Your task to perform on an android device: change notifications settings Image 0: 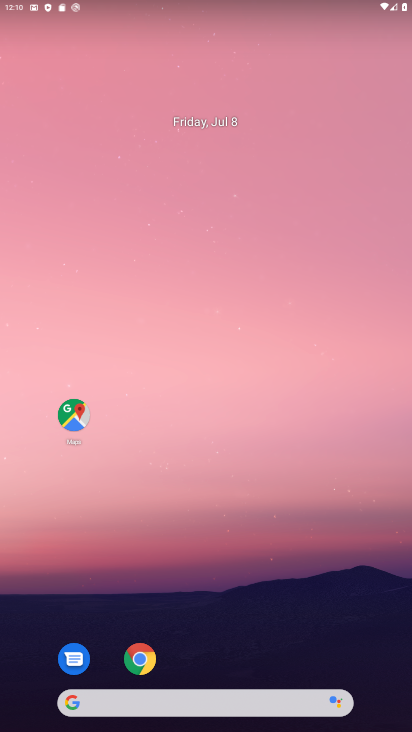
Step 0: drag from (223, 497) to (231, 48)
Your task to perform on an android device: change notifications settings Image 1: 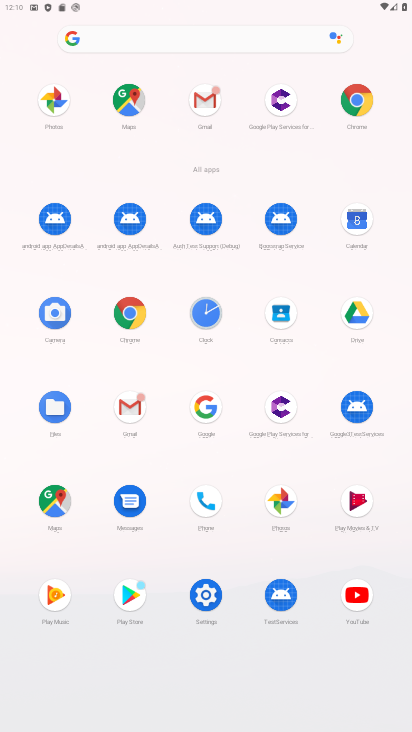
Step 1: click (210, 602)
Your task to perform on an android device: change notifications settings Image 2: 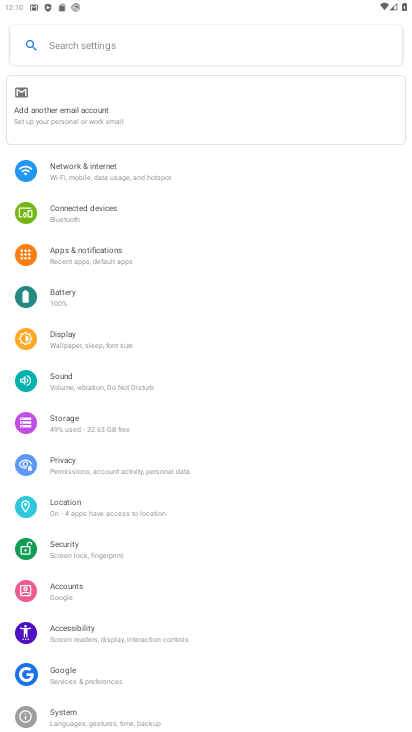
Step 2: click (187, 256)
Your task to perform on an android device: change notifications settings Image 3: 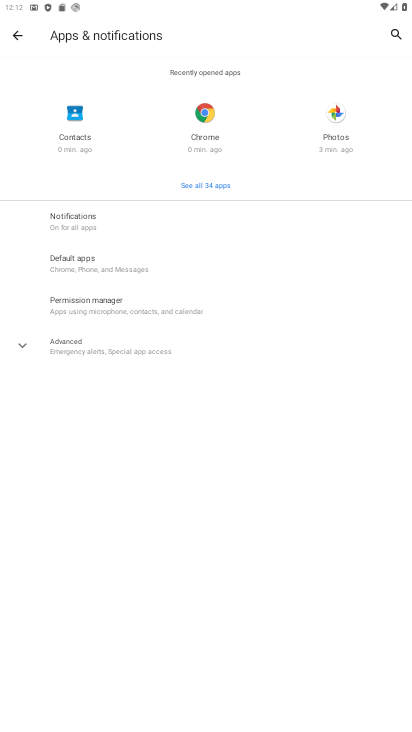
Step 3: click (116, 237)
Your task to perform on an android device: change notifications settings Image 4: 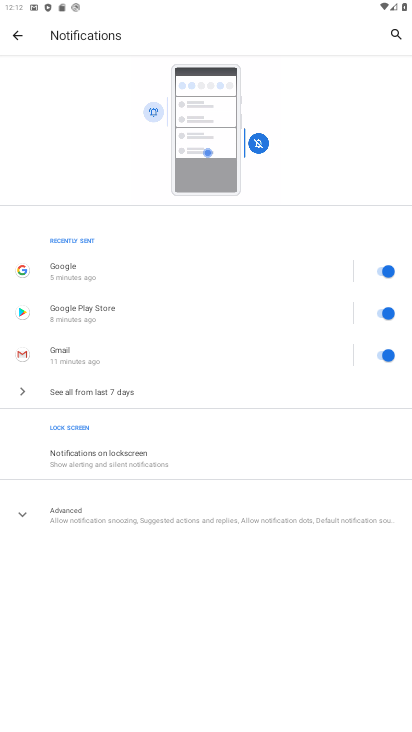
Step 4: click (395, 287)
Your task to perform on an android device: change notifications settings Image 5: 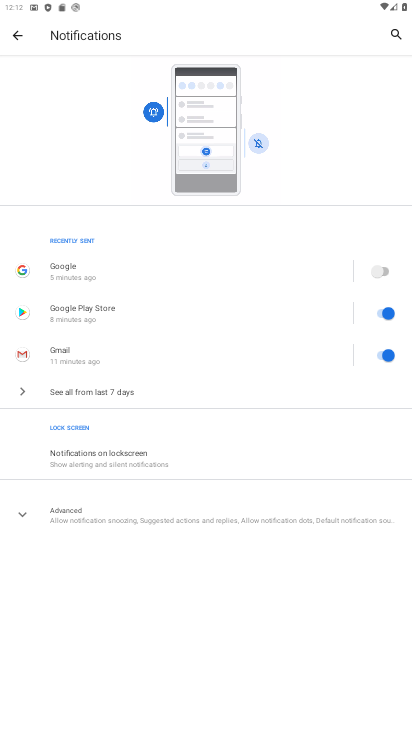
Step 5: task complete